Your task to perform on an android device: find snoozed emails in the gmail app Image 0: 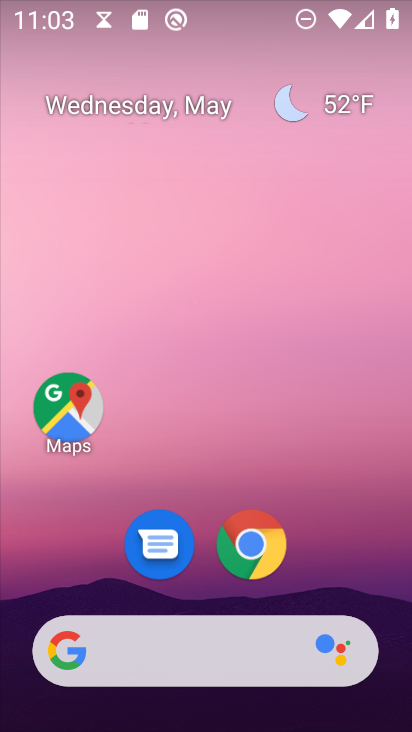
Step 0: drag from (230, 590) to (209, 70)
Your task to perform on an android device: find snoozed emails in the gmail app Image 1: 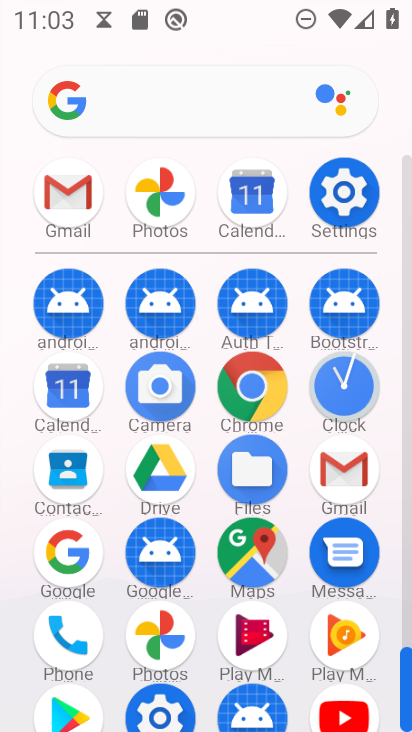
Step 1: click (209, 70)
Your task to perform on an android device: find snoozed emails in the gmail app Image 2: 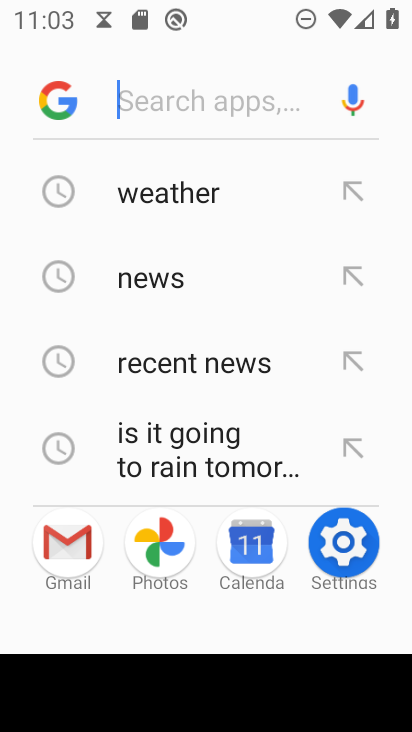
Step 2: click (86, 530)
Your task to perform on an android device: find snoozed emails in the gmail app Image 3: 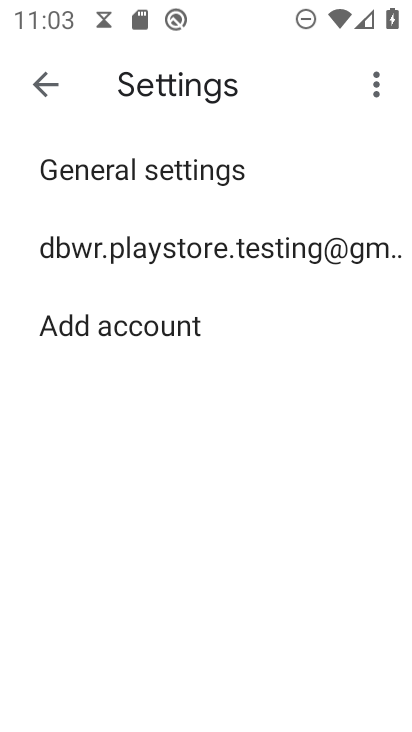
Step 3: click (171, 233)
Your task to perform on an android device: find snoozed emails in the gmail app Image 4: 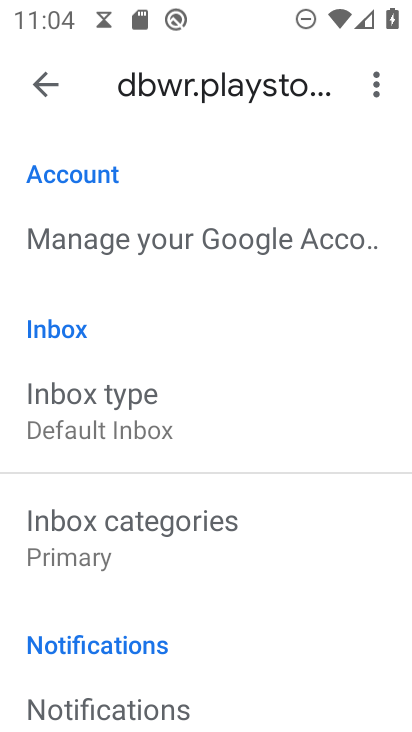
Step 4: click (47, 98)
Your task to perform on an android device: find snoozed emails in the gmail app Image 5: 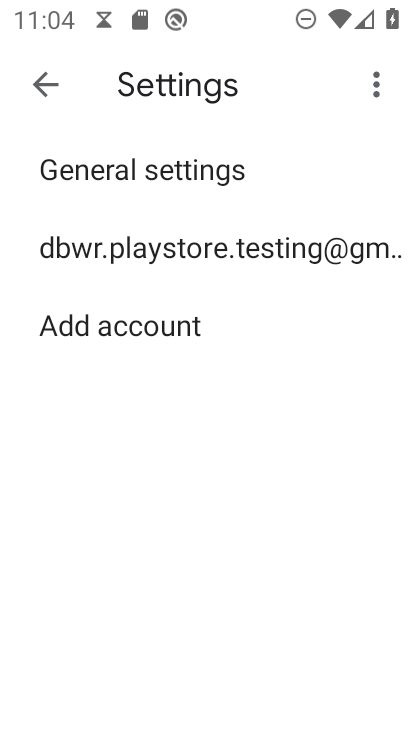
Step 5: click (47, 98)
Your task to perform on an android device: find snoozed emails in the gmail app Image 6: 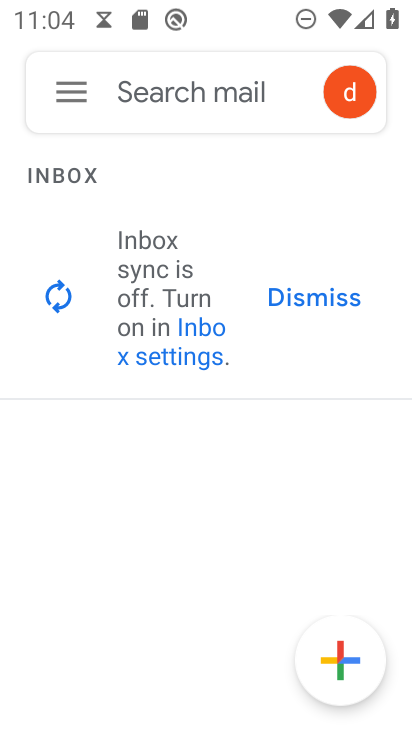
Step 6: click (47, 98)
Your task to perform on an android device: find snoozed emails in the gmail app Image 7: 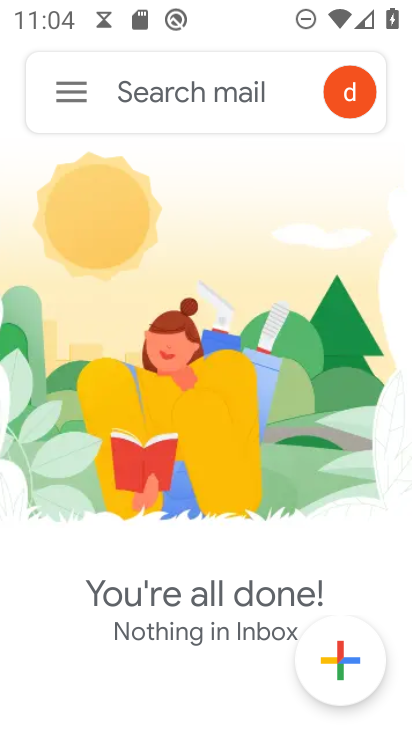
Step 7: click (70, 90)
Your task to perform on an android device: find snoozed emails in the gmail app Image 8: 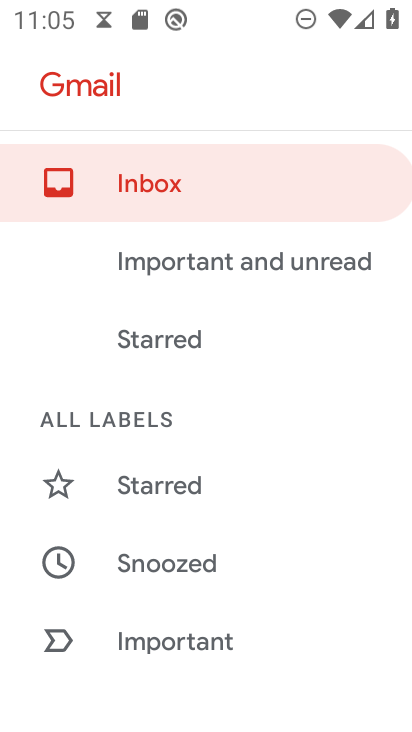
Step 8: click (147, 559)
Your task to perform on an android device: find snoozed emails in the gmail app Image 9: 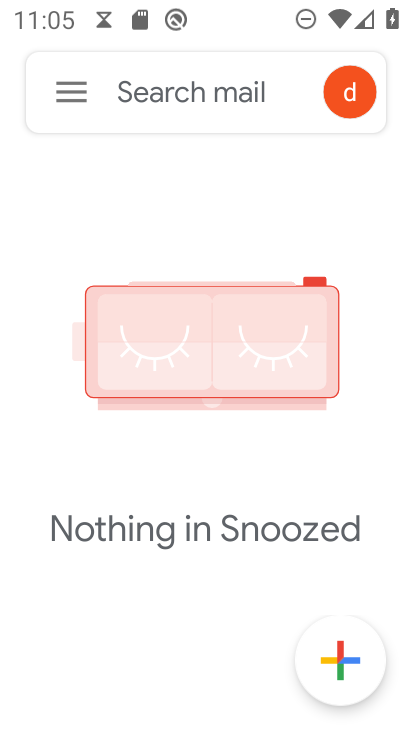
Step 9: task complete